Your task to perform on an android device: Go to location settings Image 0: 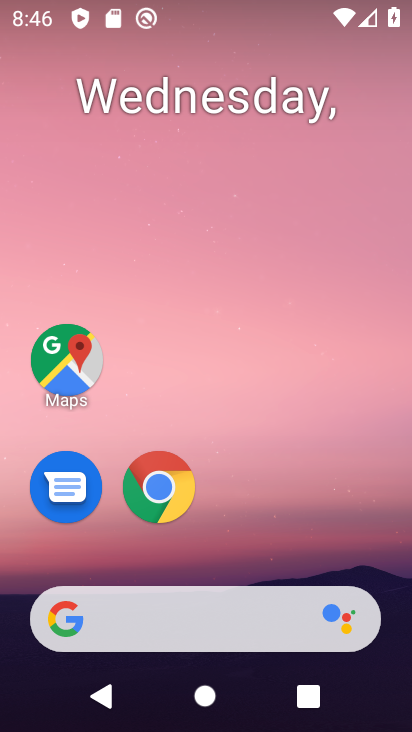
Step 0: drag from (252, 572) to (231, 53)
Your task to perform on an android device: Go to location settings Image 1: 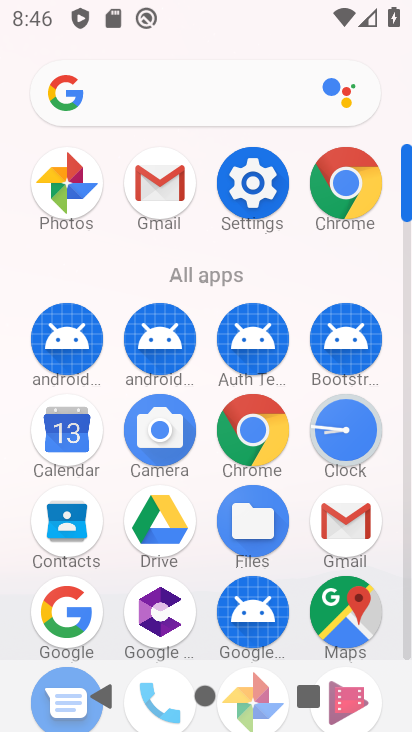
Step 1: click (253, 195)
Your task to perform on an android device: Go to location settings Image 2: 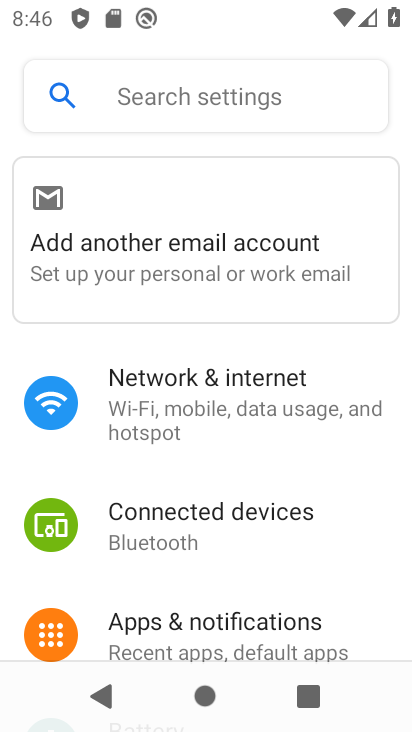
Step 2: drag from (232, 578) to (281, 88)
Your task to perform on an android device: Go to location settings Image 3: 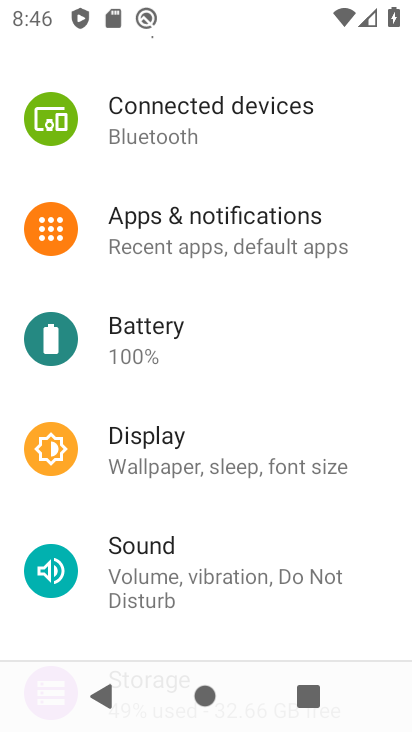
Step 3: drag from (169, 536) to (255, 32)
Your task to perform on an android device: Go to location settings Image 4: 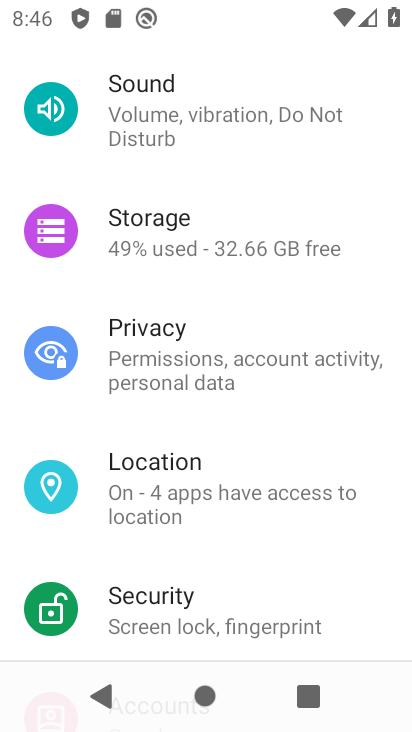
Step 4: click (166, 485)
Your task to perform on an android device: Go to location settings Image 5: 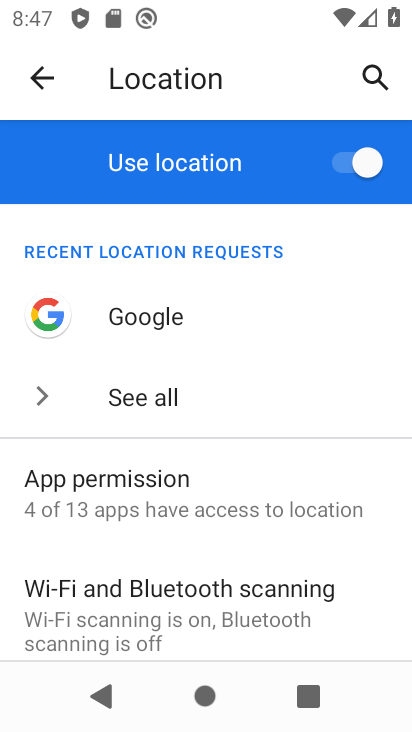
Step 5: task complete